Your task to perform on an android device: Open Chrome and go to settings Image 0: 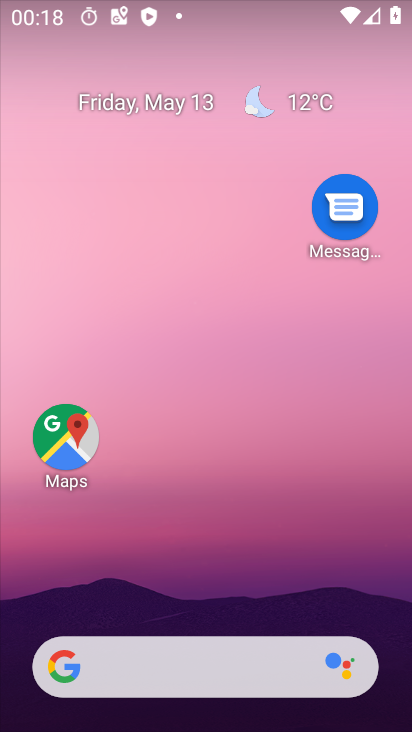
Step 0: press home button
Your task to perform on an android device: Open Chrome and go to settings Image 1: 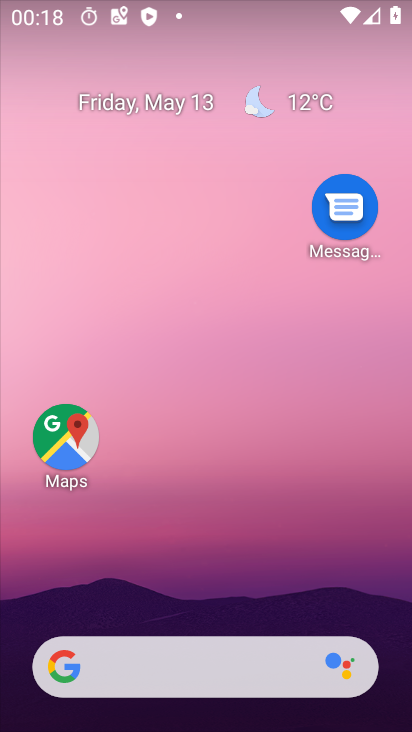
Step 1: drag from (178, 512) to (275, 0)
Your task to perform on an android device: Open Chrome and go to settings Image 2: 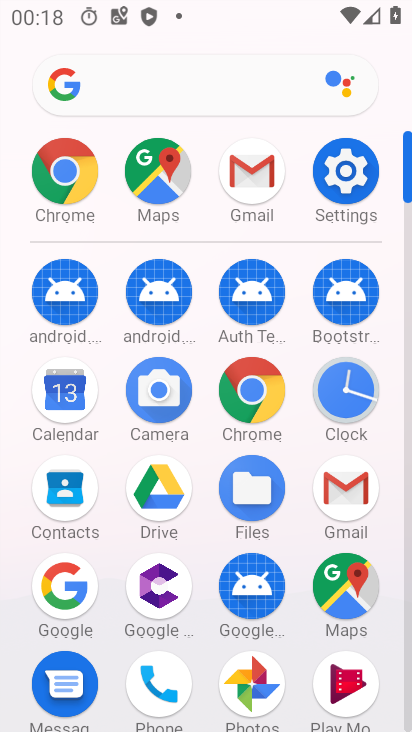
Step 2: click (40, 188)
Your task to perform on an android device: Open Chrome and go to settings Image 3: 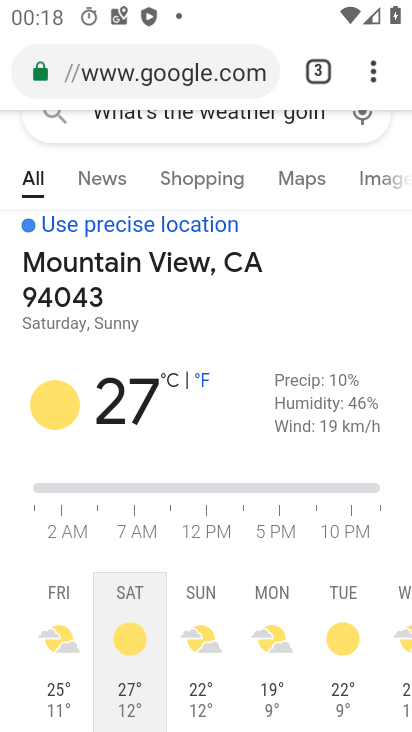
Step 3: task complete